Your task to perform on an android device: open chrome and create a bookmark for the current page Image 0: 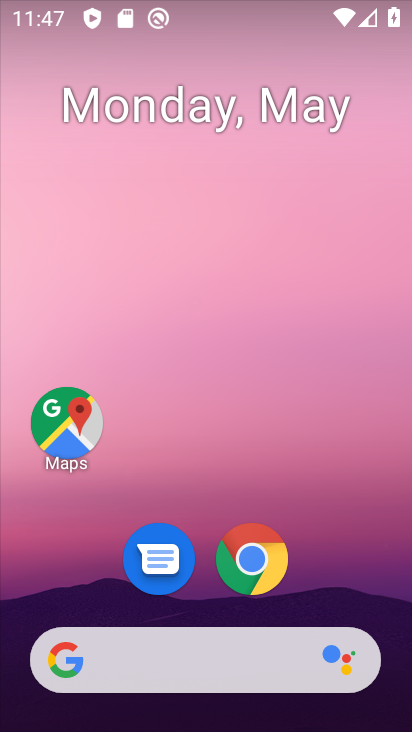
Step 0: click (254, 551)
Your task to perform on an android device: open chrome and create a bookmark for the current page Image 1: 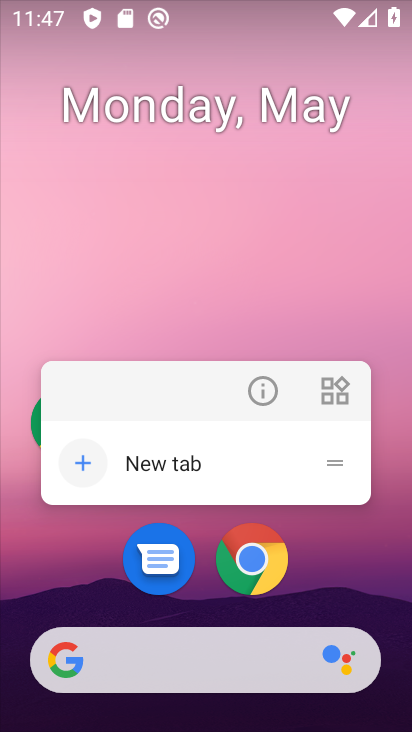
Step 1: click (255, 554)
Your task to perform on an android device: open chrome and create a bookmark for the current page Image 2: 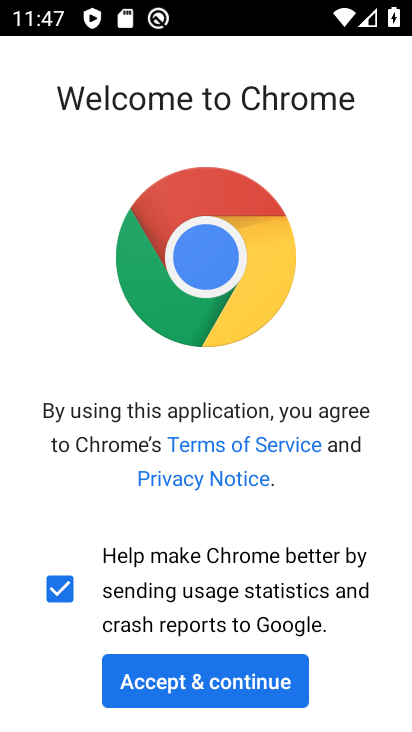
Step 2: click (208, 674)
Your task to perform on an android device: open chrome and create a bookmark for the current page Image 3: 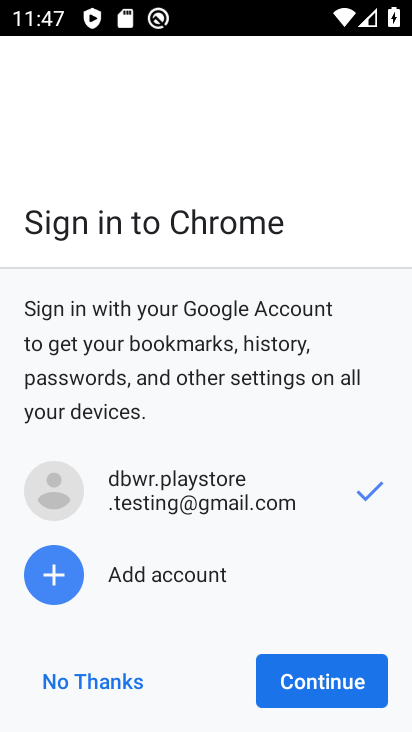
Step 3: click (330, 665)
Your task to perform on an android device: open chrome and create a bookmark for the current page Image 4: 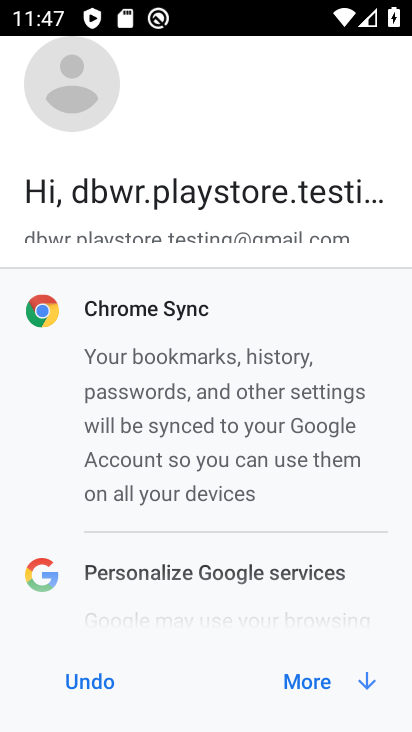
Step 4: click (330, 686)
Your task to perform on an android device: open chrome and create a bookmark for the current page Image 5: 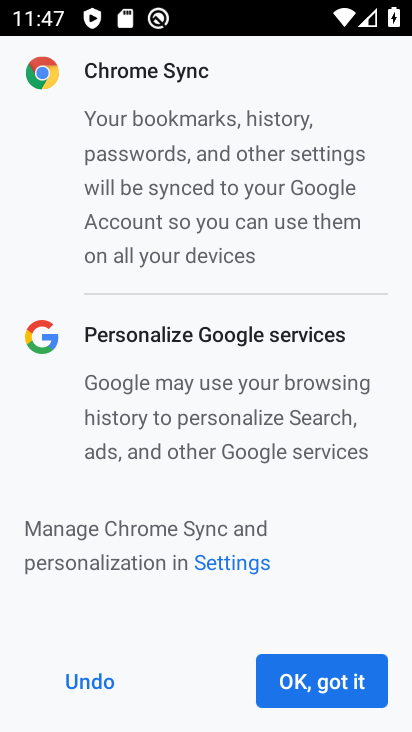
Step 5: click (309, 685)
Your task to perform on an android device: open chrome and create a bookmark for the current page Image 6: 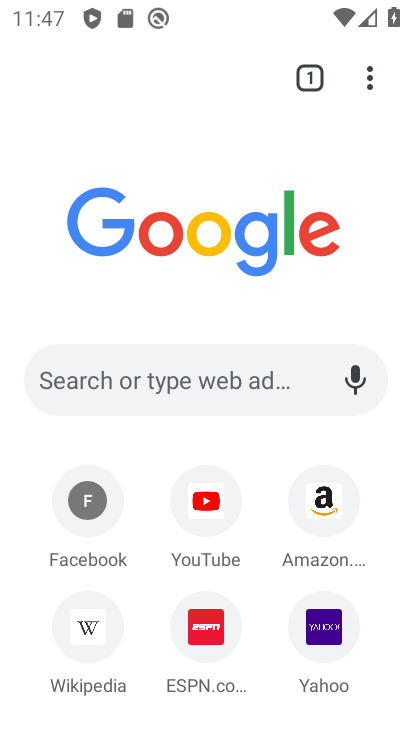
Step 6: click (369, 78)
Your task to perform on an android device: open chrome and create a bookmark for the current page Image 7: 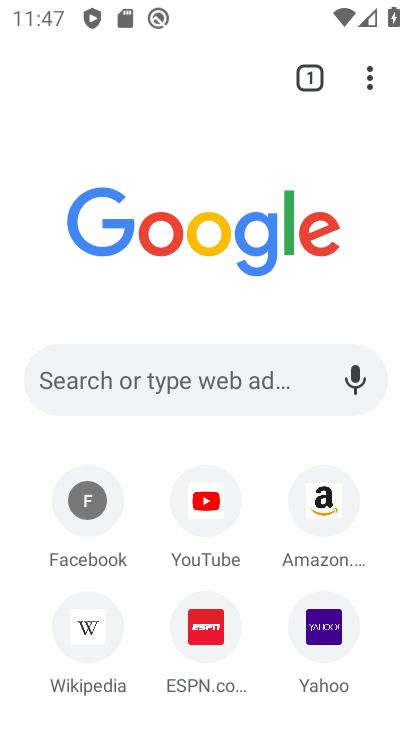
Step 7: click (377, 75)
Your task to perform on an android device: open chrome and create a bookmark for the current page Image 8: 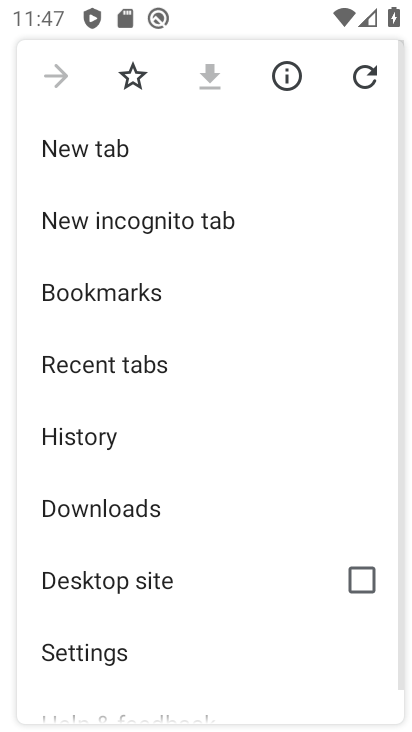
Step 8: click (137, 75)
Your task to perform on an android device: open chrome and create a bookmark for the current page Image 9: 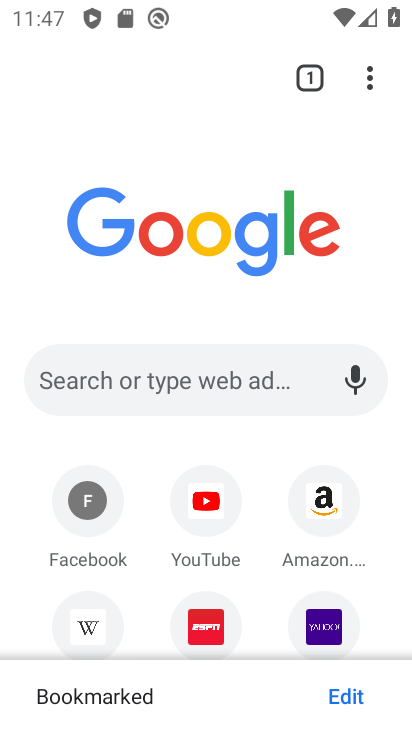
Step 9: task complete